Your task to perform on an android device: Go to display settings Image 0: 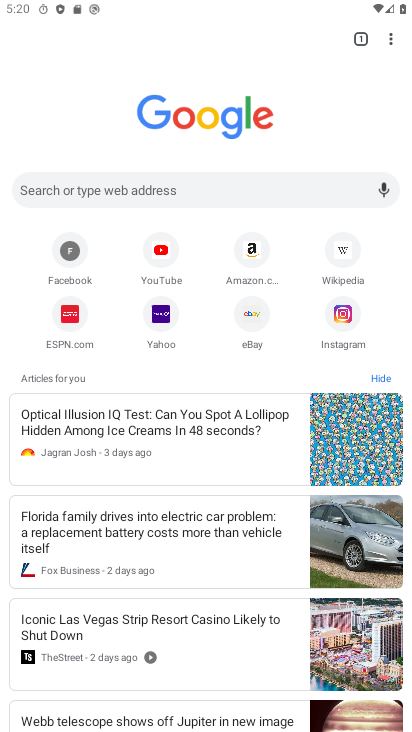
Step 0: press home button
Your task to perform on an android device: Go to display settings Image 1: 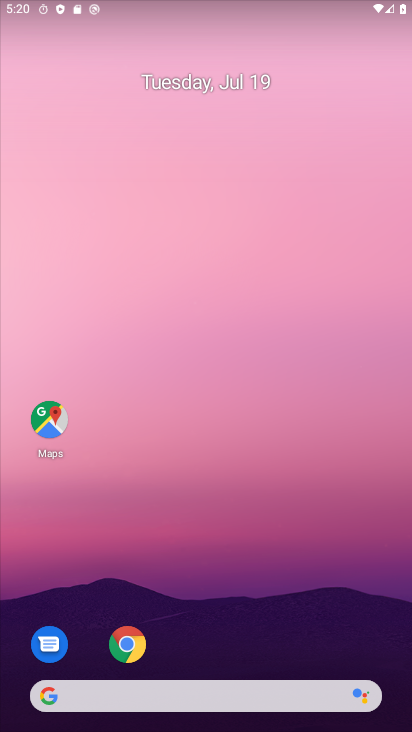
Step 1: drag from (266, 561) to (217, 132)
Your task to perform on an android device: Go to display settings Image 2: 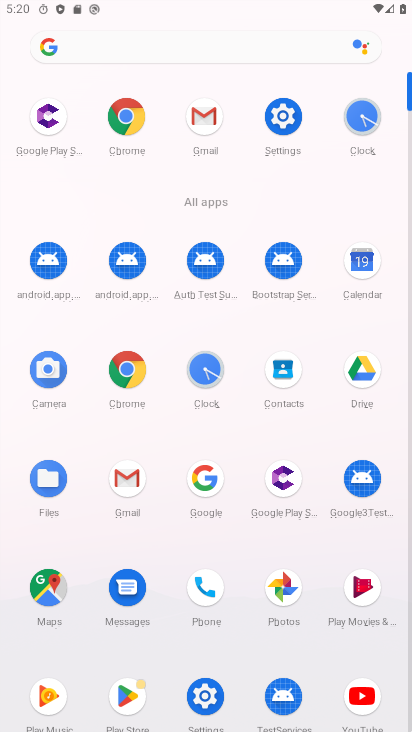
Step 2: click (288, 120)
Your task to perform on an android device: Go to display settings Image 3: 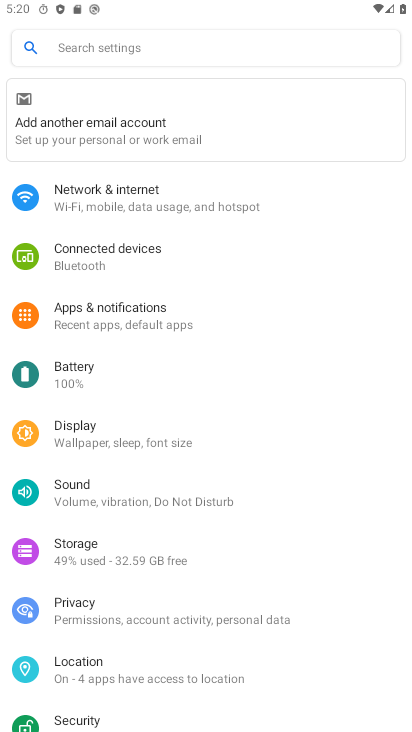
Step 3: click (78, 435)
Your task to perform on an android device: Go to display settings Image 4: 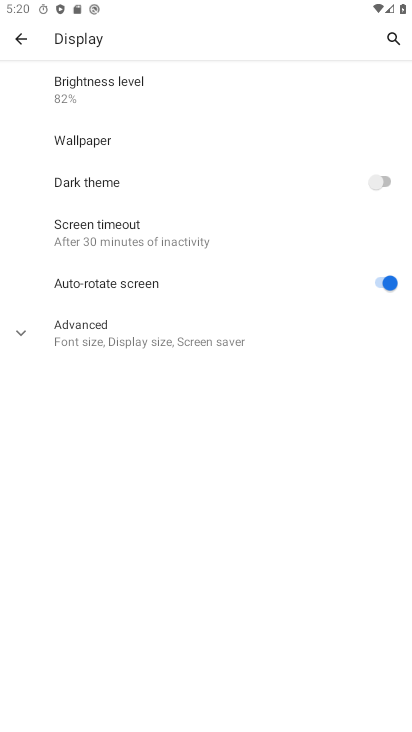
Step 4: task complete